Your task to perform on an android device: Go to privacy settings Image 0: 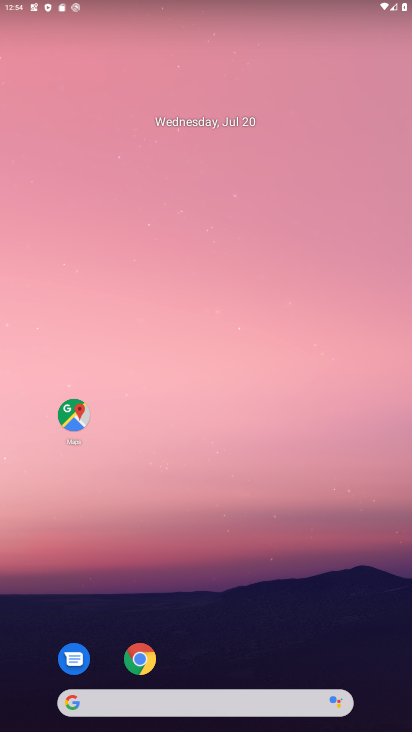
Step 0: drag from (352, 651) to (155, 3)
Your task to perform on an android device: Go to privacy settings Image 1: 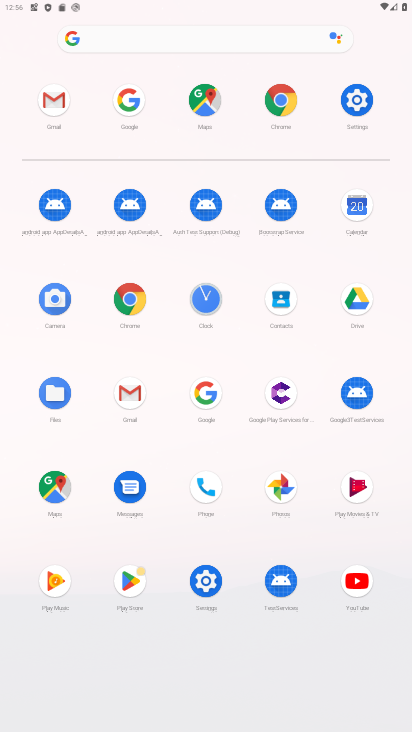
Step 1: click (209, 587)
Your task to perform on an android device: Go to privacy settings Image 2: 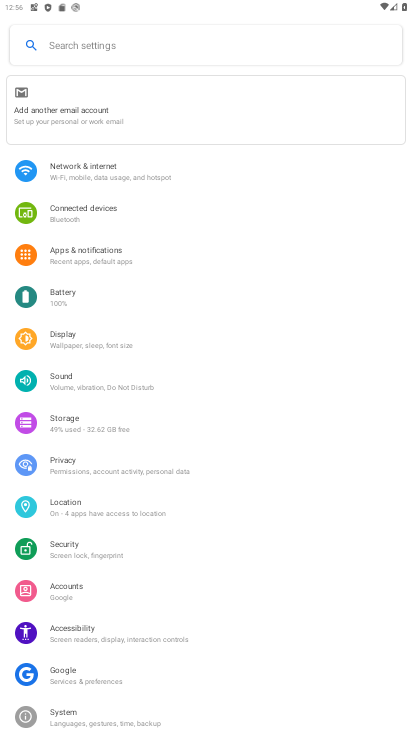
Step 2: click (71, 469)
Your task to perform on an android device: Go to privacy settings Image 3: 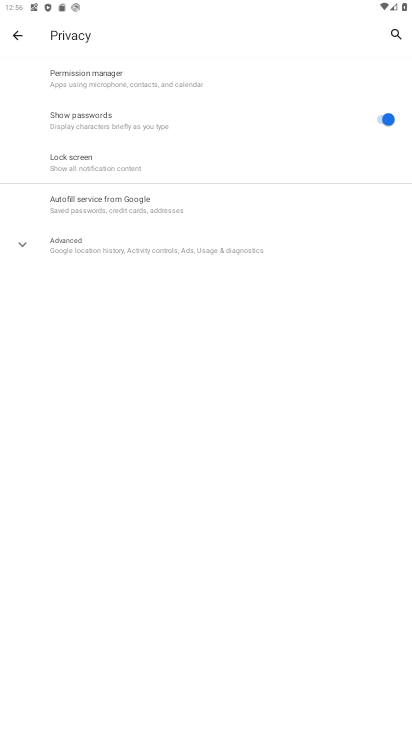
Step 3: task complete